Your task to perform on an android device: toggle javascript in the chrome app Image 0: 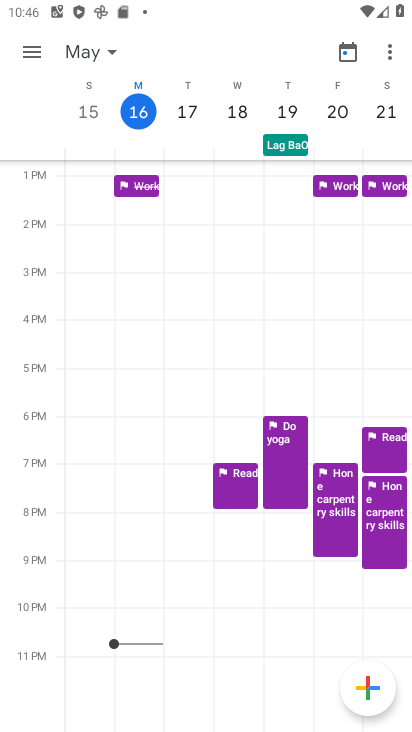
Step 0: press home button
Your task to perform on an android device: toggle javascript in the chrome app Image 1: 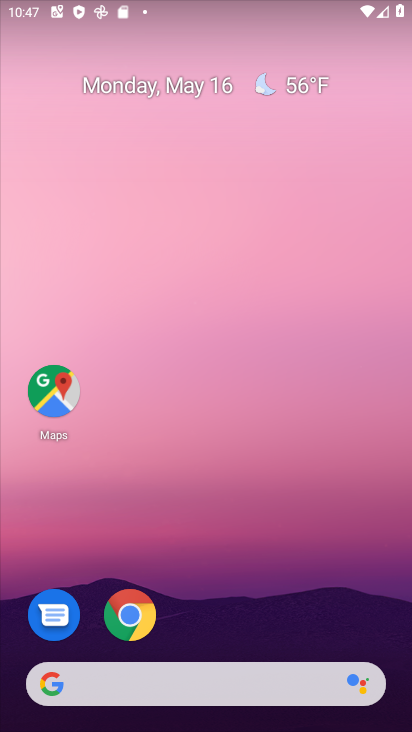
Step 1: drag from (283, 706) to (229, 281)
Your task to perform on an android device: toggle javascript in the chrome app Image 2: 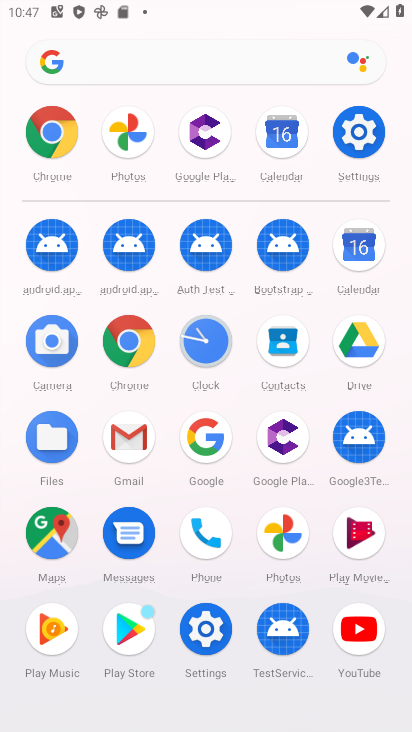
Step 2: click (43, 143)
Your task to perform on an android device: toggle javascript in the chrome app Image 3: 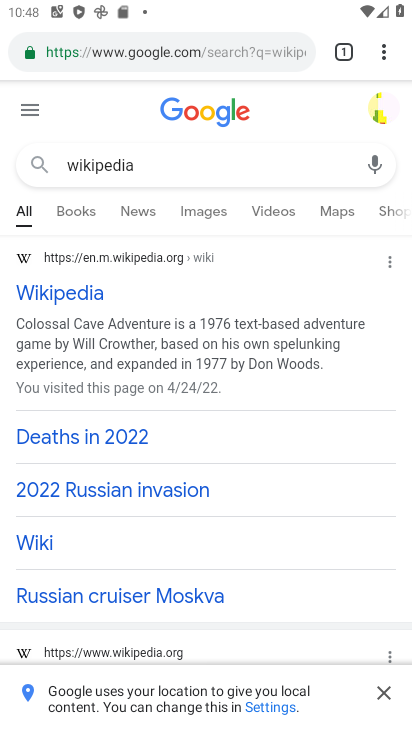
Step 3: click (372, 67)
Your task to perform on an android device: toggle javascript in the chrome app Image 4: 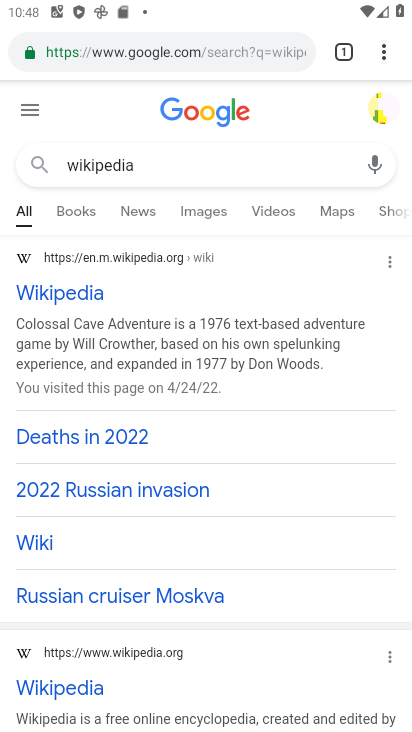
Step 4: click (381, 63)
Your task to perform on an android device: toggle javascript in the chrome app Image 5: 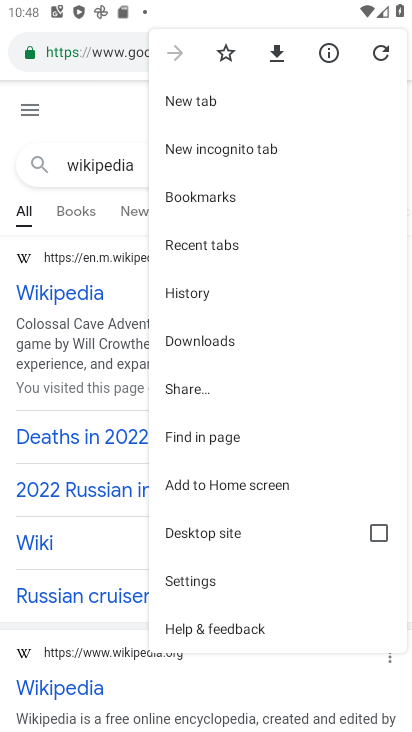
Step 5: click (206, 590)
Your task to perform on an android device: toggle javascript in the chrome app Image 6: 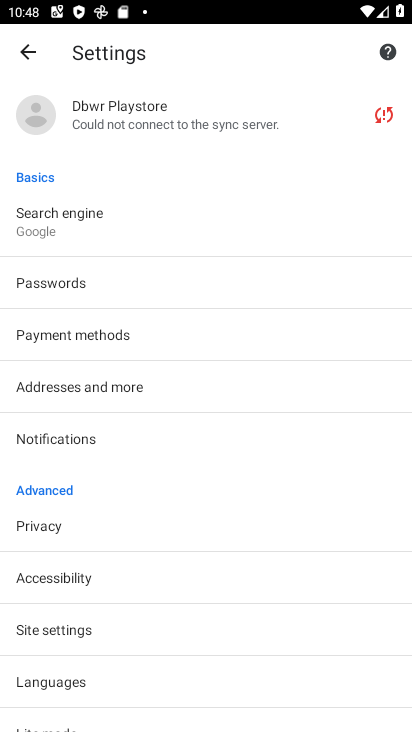
Step 6: click (83, 628)
Your task to perform on an android device: toggle javascript in the chrome app Image 7: 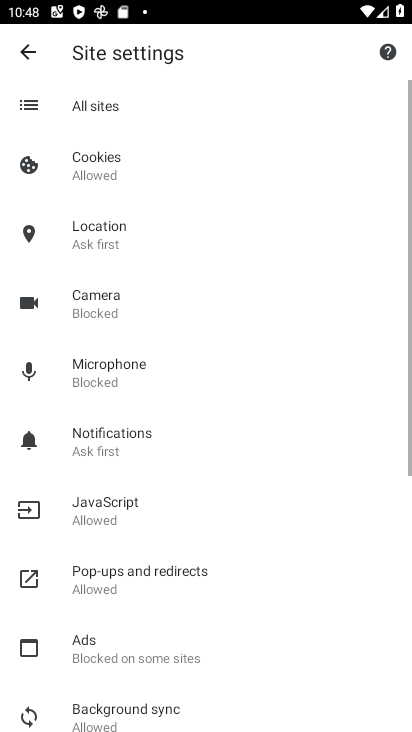
Step 7: click (136, 502)
Your task to perform on an android device: toggle javascript in the chrome app Image 8: 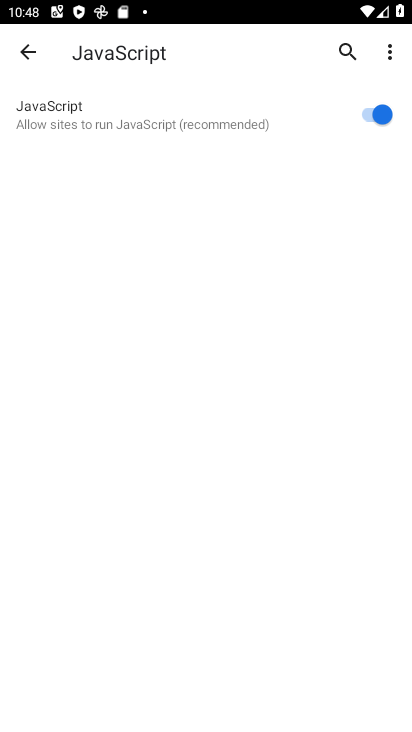
Step 8: task complete